Your task to perform on an android device: When is my next appointment? Image 0: 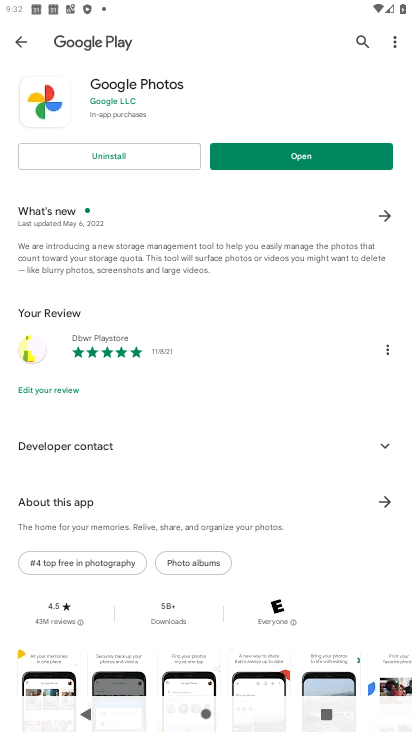
Step 0: press home button
Your task to perform on an android device: When is my next appointment? Image 1: 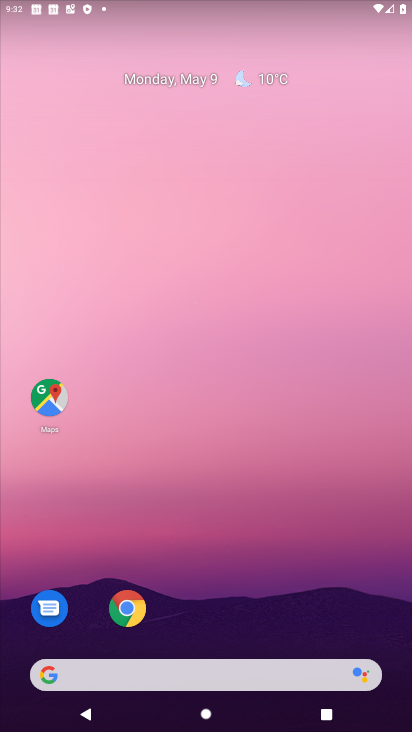
Step 1: drag from (329, 554) to (15, 72)
Your task to perform on an android device: When is my next appointment? Image 2: 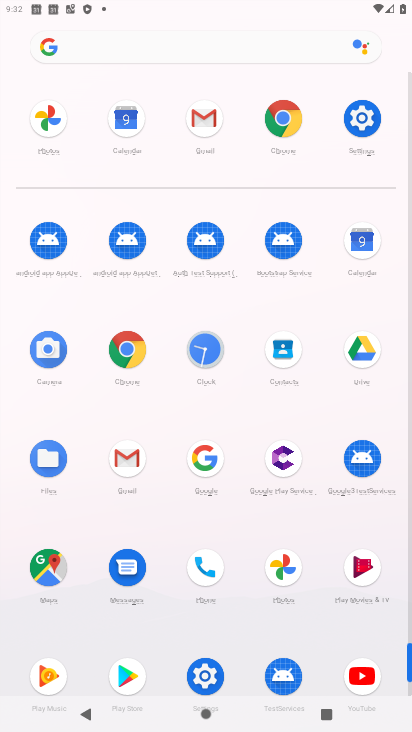
Step 2: click (359, 251)
Your task to perform on an android device: When is my next appointment? Image 3: 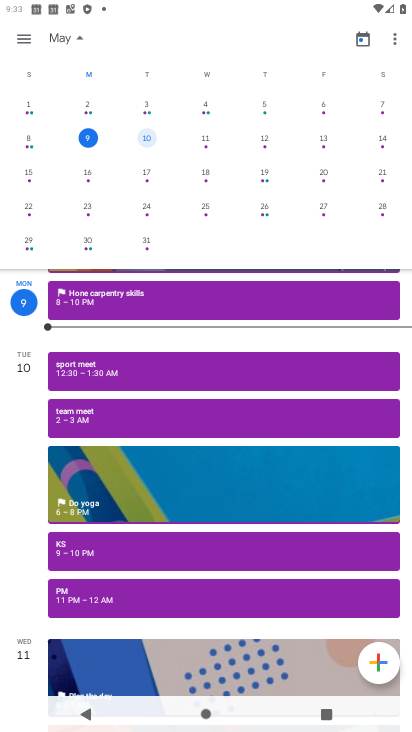
Step 3: click (204, 148)
Your task to perform on an android device: When is my next appointment? Image 4: 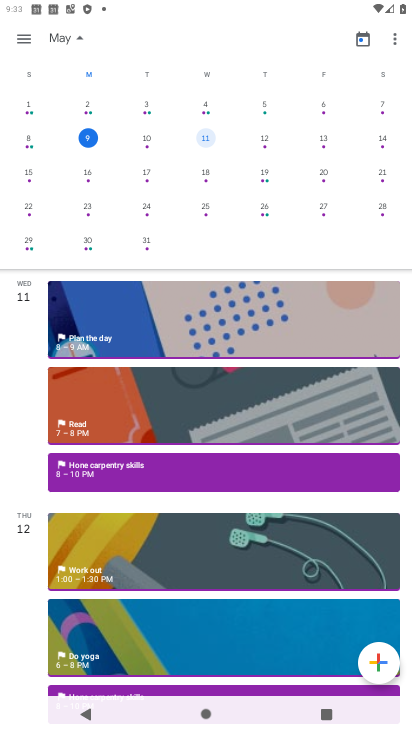
Step 4: task complete